Your task to perform on an android device: toggle data saver in the chrome app Image 0: 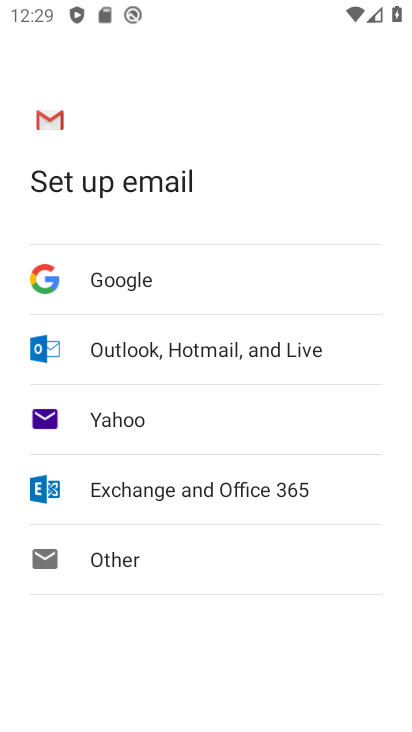
Step 0: press home button
Your task to perform on an android device: toggle data saver in the chrome app Image 1: 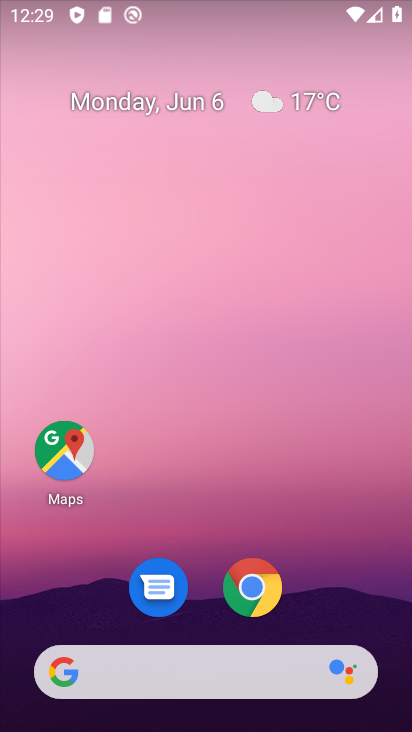
Step 1: click (253, 596)
Your task to perform on an android device: toggle data saver in the chrome app Image 2: 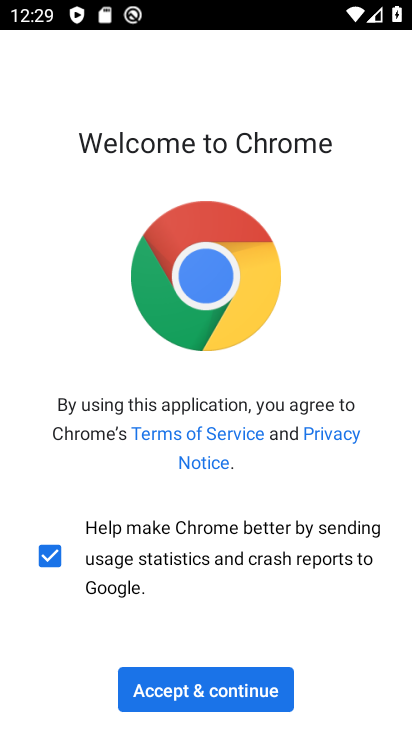
Step 2: click (238, 684)
Your task to perform on an android device: toggle data saver in the chrome app Image 3: 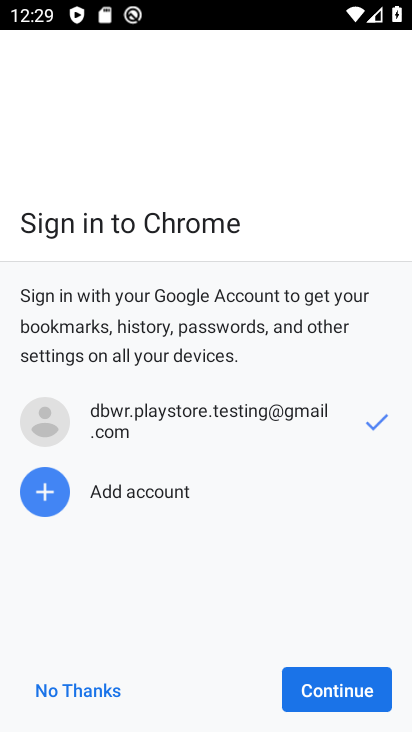
Step 3: click (329, 690)
Your task to perform on an android device: toggle data saver in the chrome app Image 4: 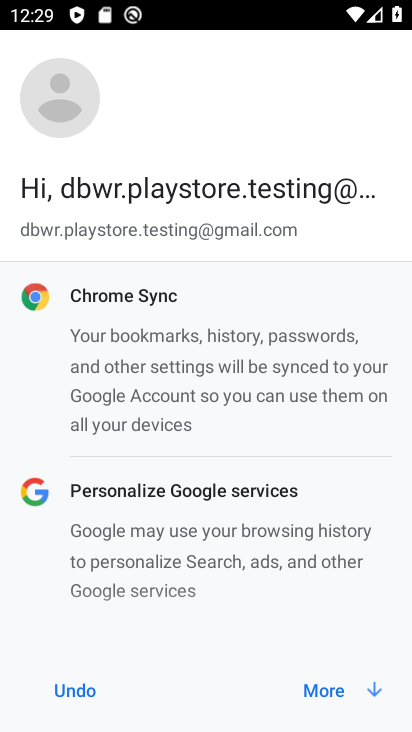
Step 4: click (347, 692)
Your task to perform on an android device: toggle data saver in the chrome app Image 5: 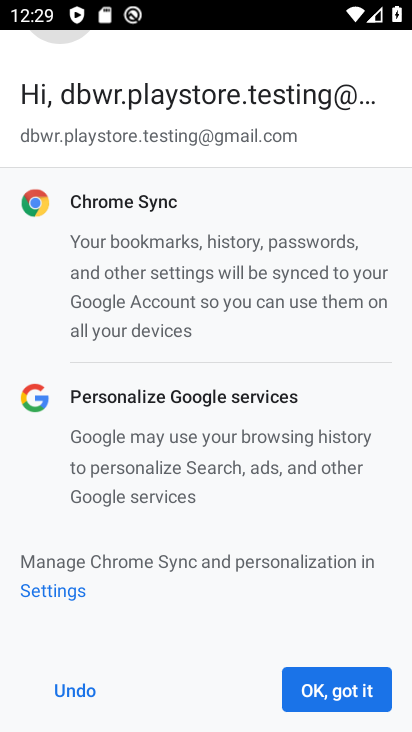
Step 5: click (344, 690)
Your task to perform on an android device: toggle data saver in the chrome app Image 6: 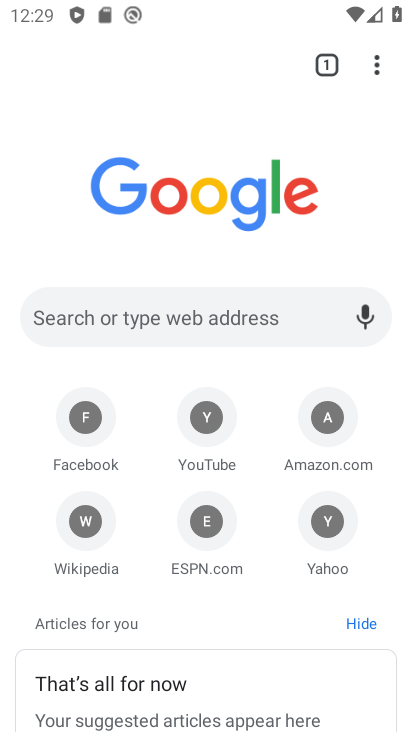
Step 6: click (373, 73)
Your task to perform on an android device: toggle data saver in the chrome app Image 7: 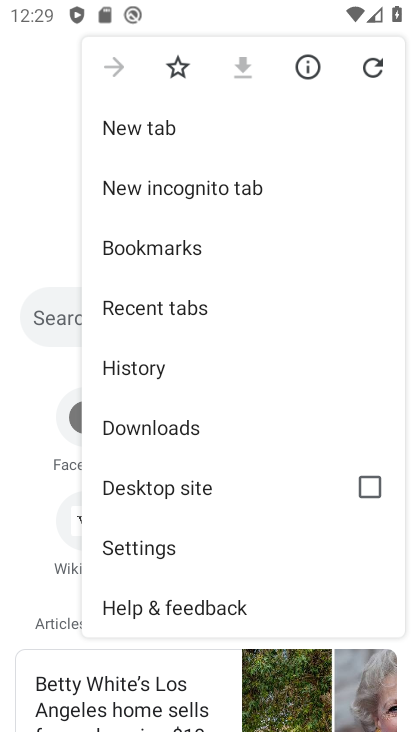
Step 7: click (169, 557)
Your task to perform on an android device: toggle data saver in the chrome app Image 8: 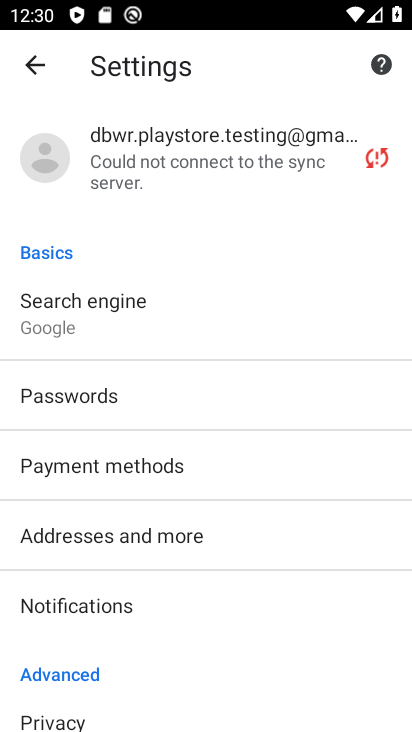
Step 8: drag from (206, 647) to (204, 247)
Your task to perform on an android device: toggle data saver in the chrome app Image 9: 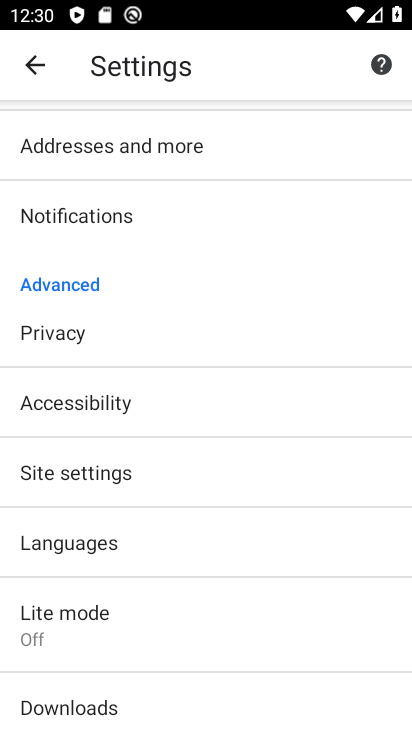
Step 9: click (96, 642)
Your task to perform on an android device: toggle data saver in the chrome app Image 10: 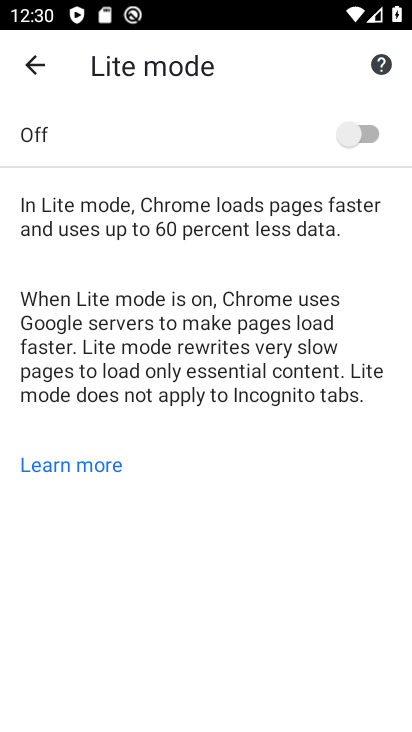
Step 10: click (359, 132)
Your task to perform on an android device: toggle data saver in the chrome app Image 11: 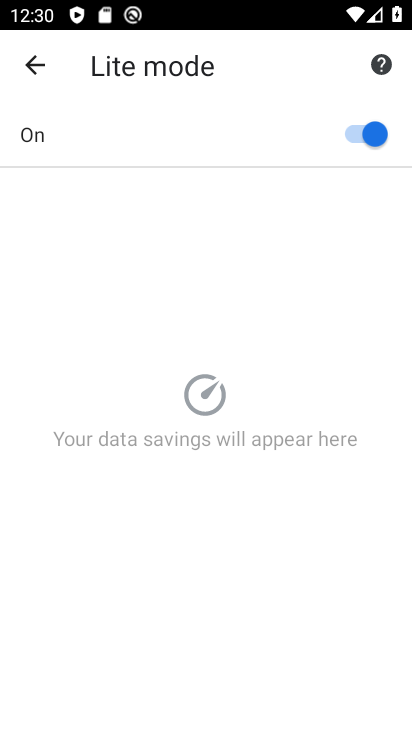
Step 11: task complete